Your task to perform on an android device: Is it going to rain this weekend? Image 0: 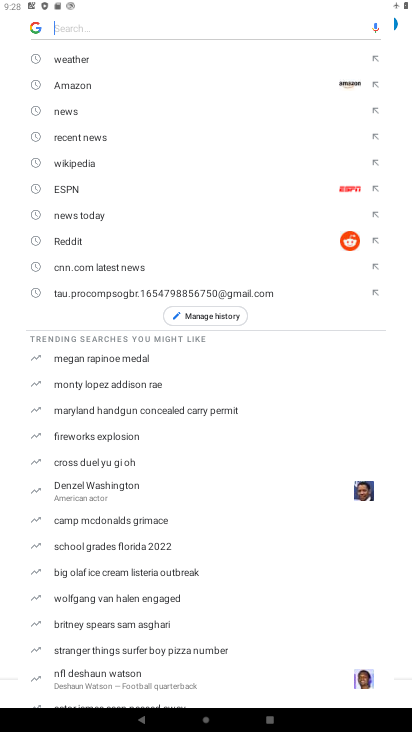
Step 0: press home button
Your task to perform on an android device: Is it going to rain this weekend? Image 1: 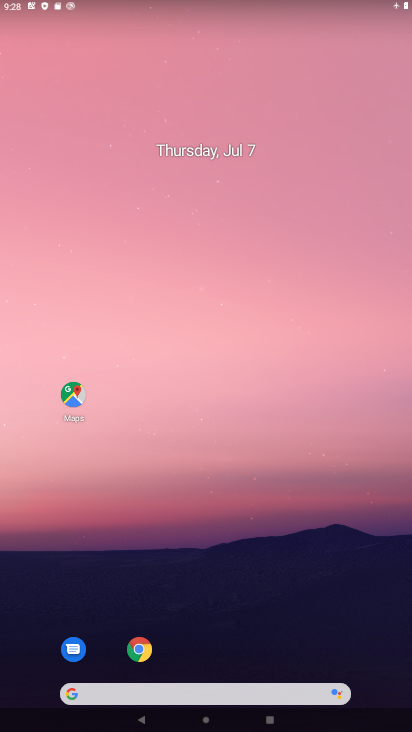
Step 1: click (222, 725)
Your task to perform on an android device: Is it going to rain this weekend? Image 2: 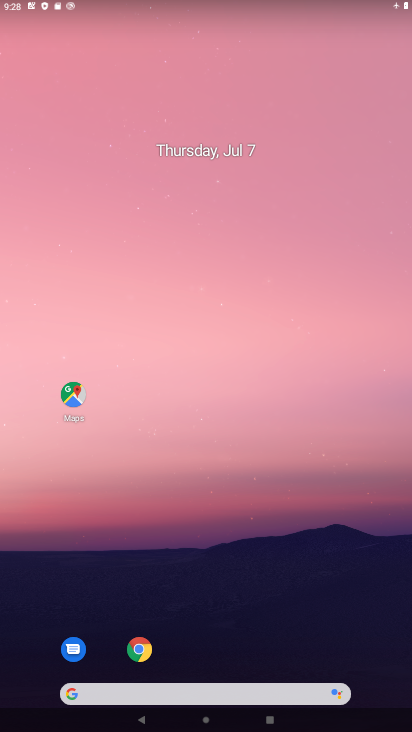
Step 2: click (223, 48)
Your task to perform on an android device: Is it going to rain this weekend? Image 3: 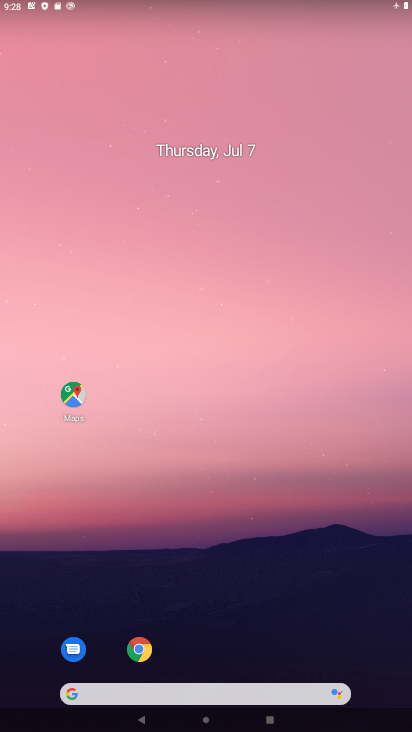
Step 3: drag from (308, 714) to (305, 74)
Your task to perform on an android device: Is it going to rain this weekend? Image 4: 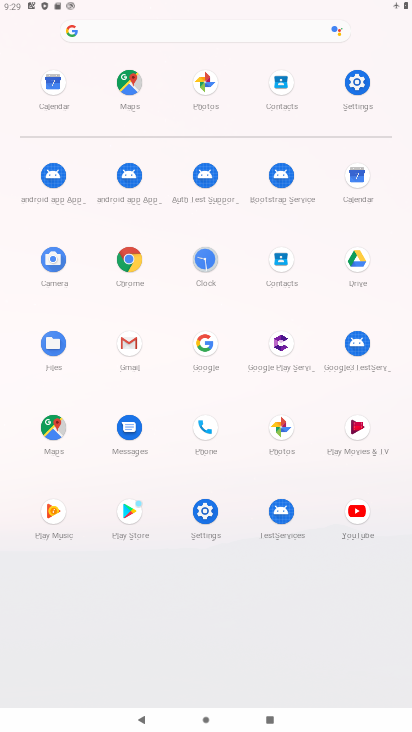
Step 4: click (197, 349)
Your task to perform on an android device: Is it going to rain this weekend? Image 5: 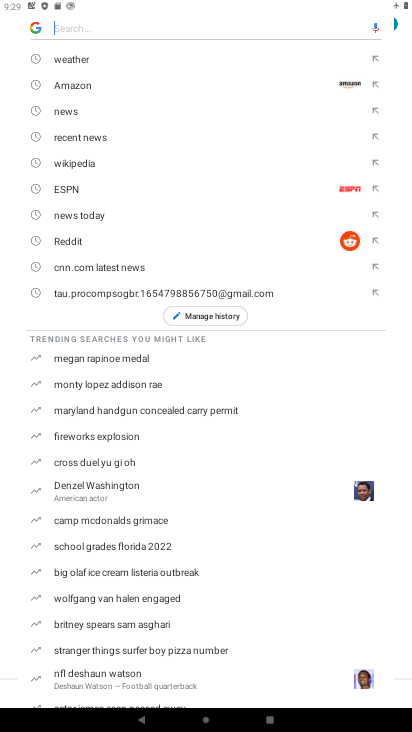
Step 5: click (83, 58)
Your task to perform on an android device: Is it going to rain this weekend? Image 6: 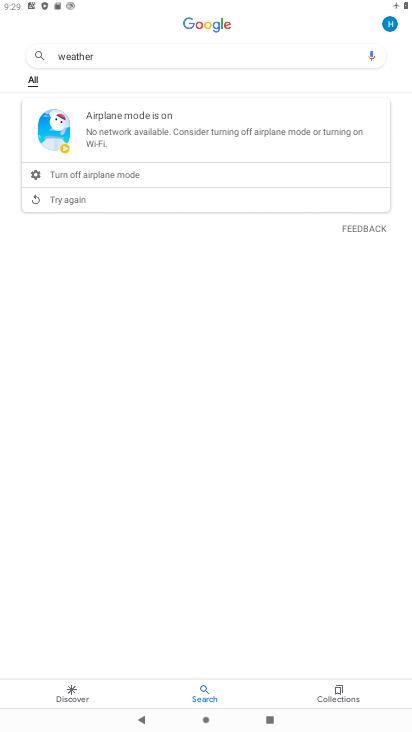
Step 6: task complete